Your task to perform on an android device: turn on bluetooth scan Image 0: 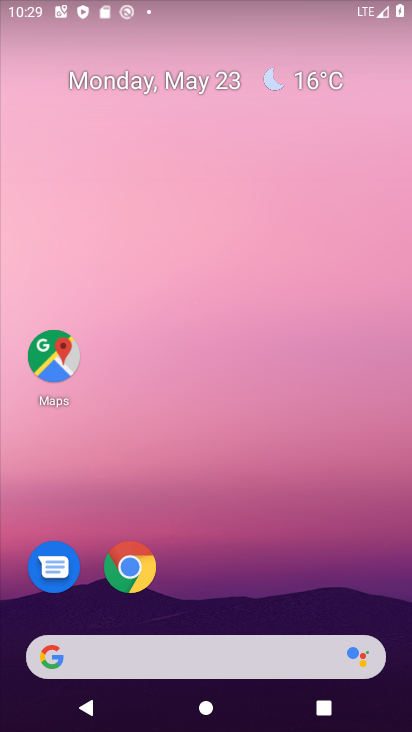
Step 0: click (166, 87)
Your task to perform on an android device: turn on bluetooth scan Image 1: 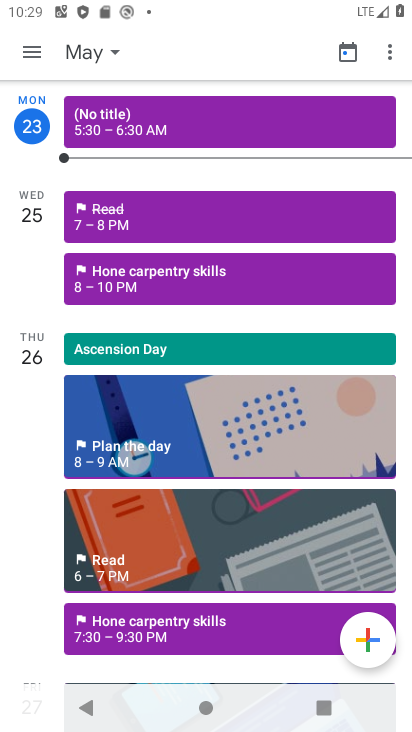
Step 1: press home button
Your task to perform on an android device: turn on bluetooth scan Image 2: 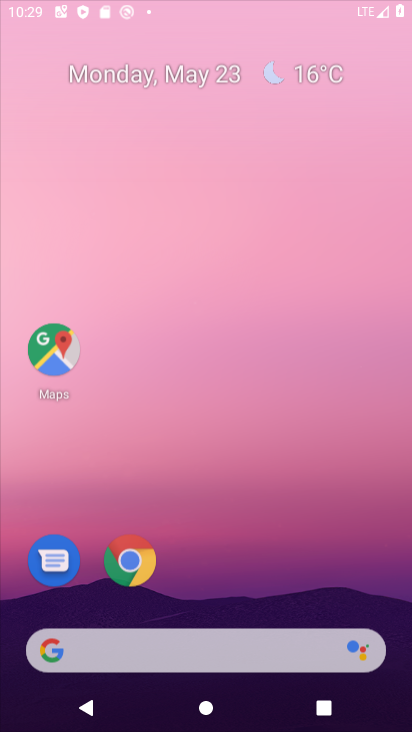
Step 2: drag from (198, 592) to (289, 156)
Your task to perform on an android device: turn on bluetooth scan Image 3: 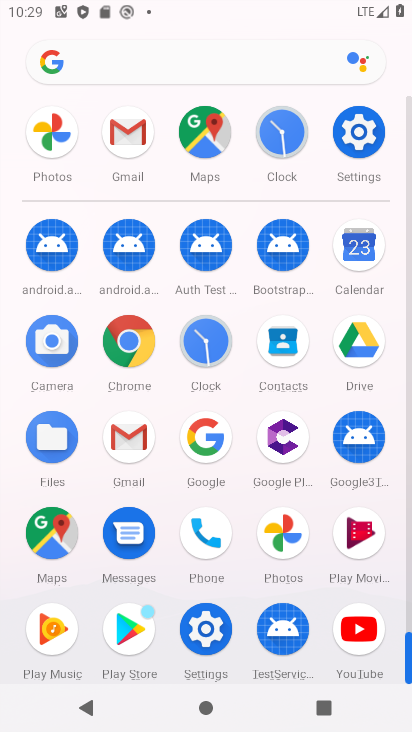
Step 3: click (359, 127)
Your task to perform on an android device: turn on bluetooth scan Image 4: 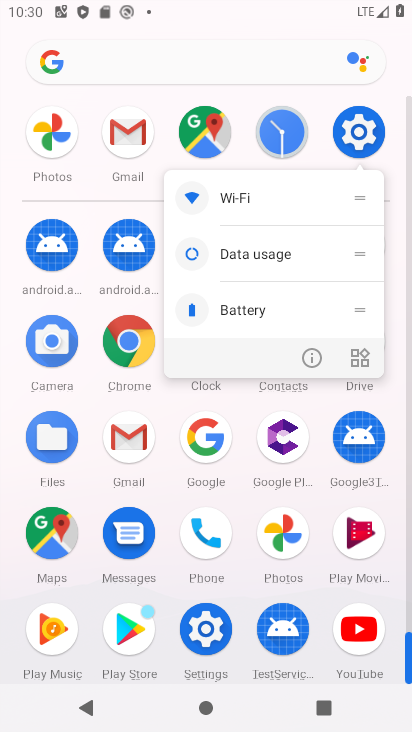
Step 4: click (313, 345)
Your task to perform on an android device: turn on bluetooth scan Image 5: 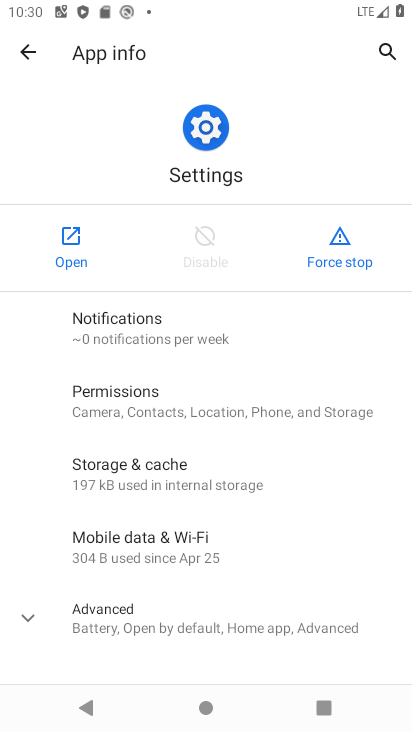
Step 5: click (83, 210)
Your task to perform on an android device: turn on bluetooth scan Image 6: 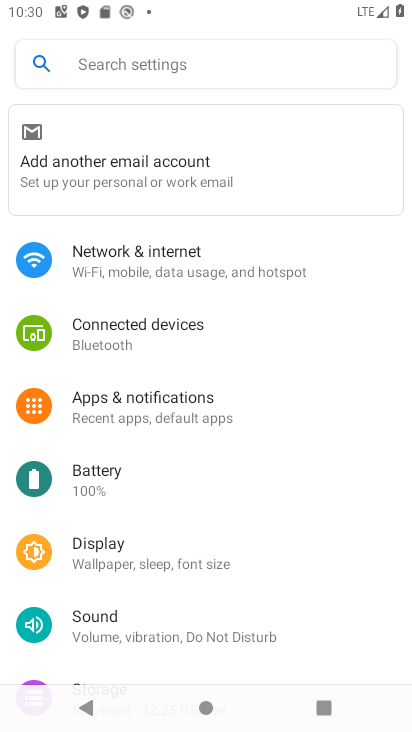
Step 6: drag from (160, 486) to (281, 176)
Your task to perform on an android device: turn on bluetooth scan Image 7: 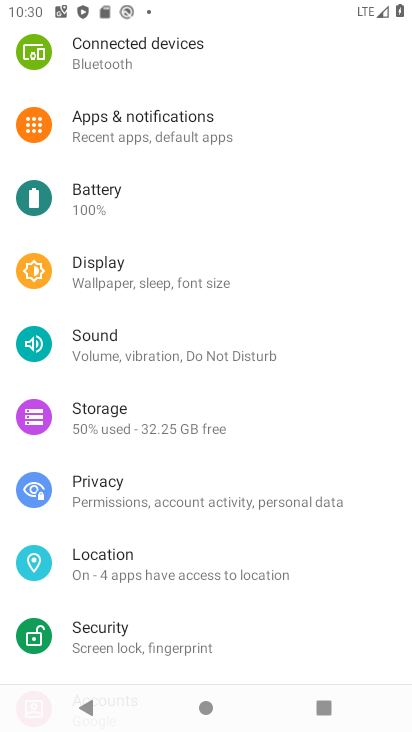
Step 7: drag from (213, 137) to (271, 625)
Your task to perform on an android device: turn on bluetooth scan Image 8: 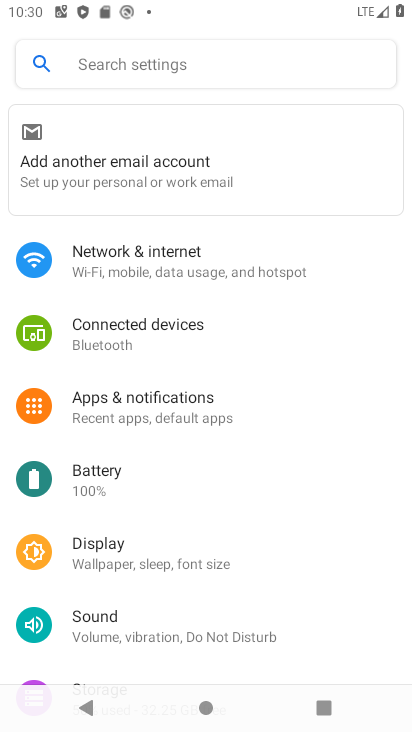
Step 8: drag from (257, 521) to (304, 306)
Your task to perform on an android device: turn on bluetooth scan Image 9: 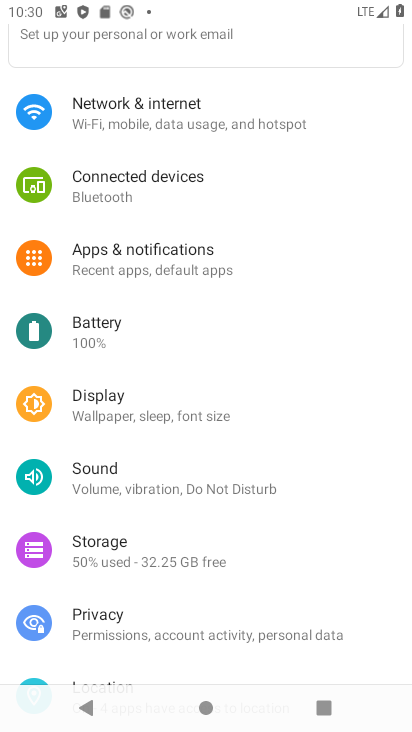
Step 9: drag from (195, 585) to (252, 68)
Your task to perform on an android device: turn on bluetooth scan Image 10: 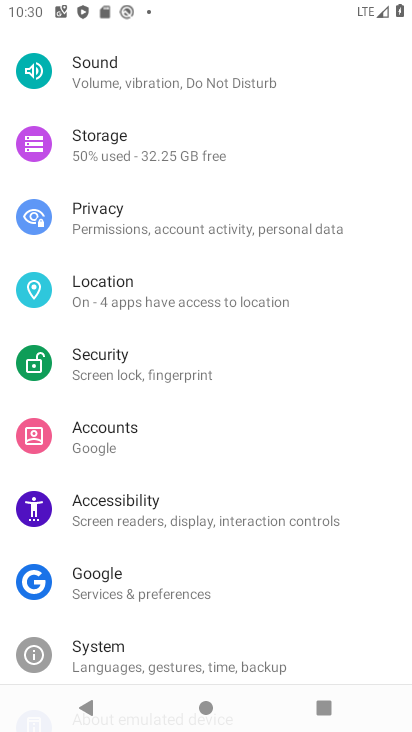
Step 10: drag from (150, 565) to (198, 204)
Your task to perform on an android device: turn on bluetooth scan Image 11: 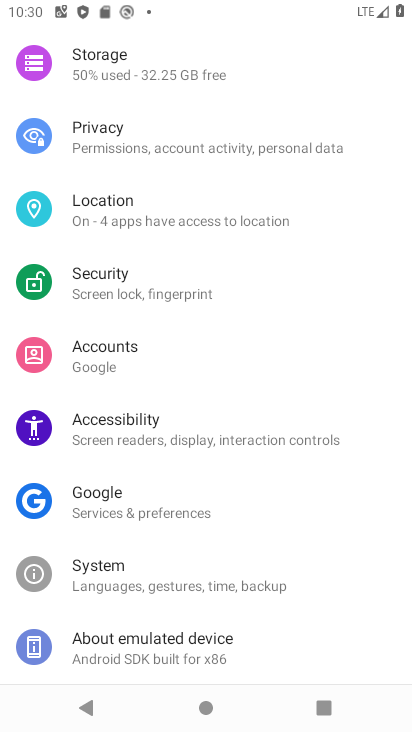
Step 11: click (138, 208)
Your task to perform on an android device: turn on bluetooth scan Image 12: 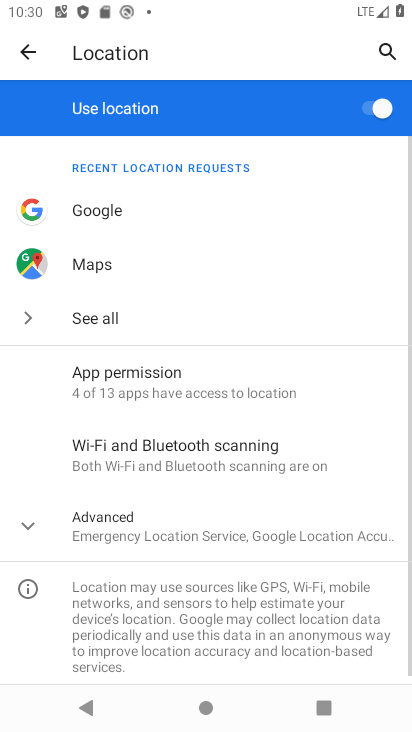
Step 12: click (202, 471)
Your task to perform on an android device: turn on bluetooth scan Image 13: 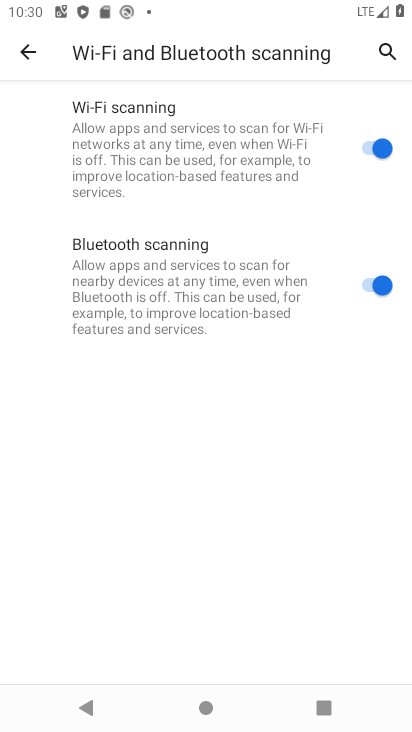
Step 13: task complete